Your task to perform on an android device: Open the calendar and show me this week's events? Image 0: 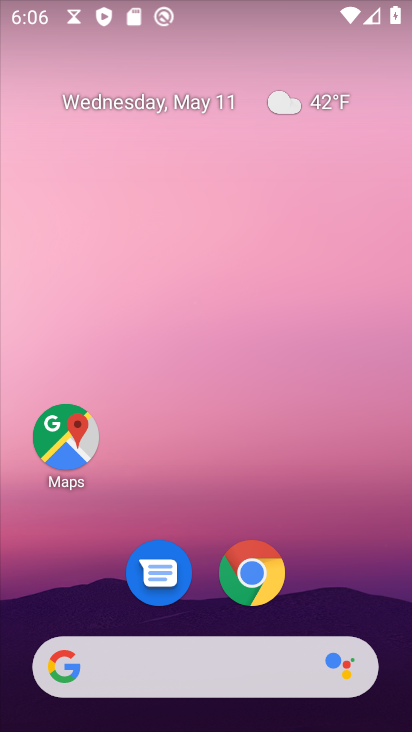
Step 0: drag from (301, 612) to (308, 182)
Your task to perform on an android device: Open the calendar and show me this week's events? Image 1: 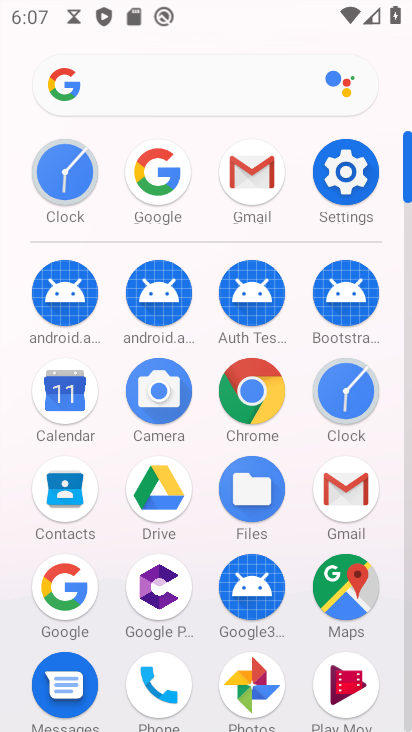
Step 1: drag from (295, 502) to (295, 339)
Your task to perform on an android device: Open the calendar and show me this week's events? Image 2: 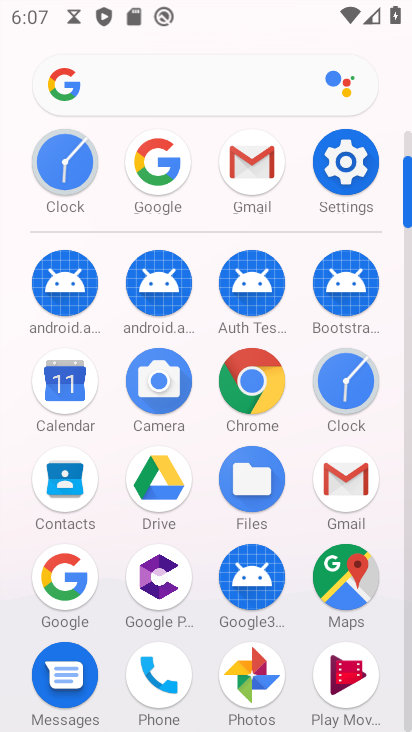
Step 2: click (58, 406)
Your task to perform on an android device: Open the calendar and show me this week's events? Image 3: 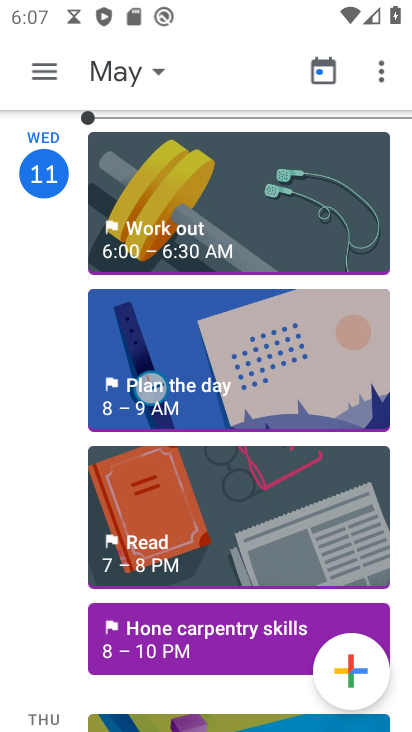
Step 3: click (101, 70)
Your task to perform on an android device: Open the calendar and show me this week's events? Image 4: 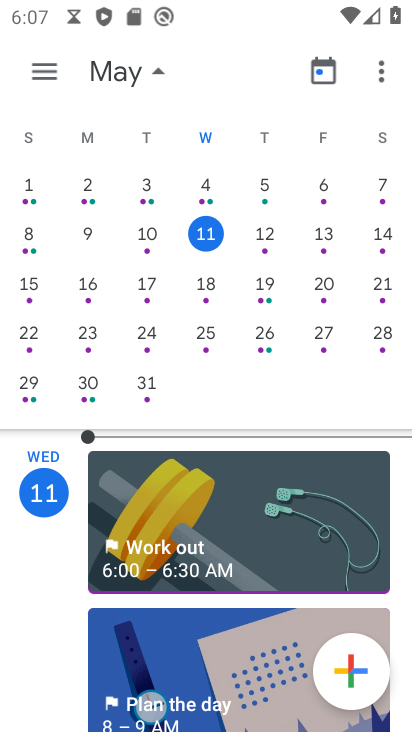
Step 4: click (39, 68)
Your task to perform on an android device: Open the calendar and show me this week's events? Image 5: 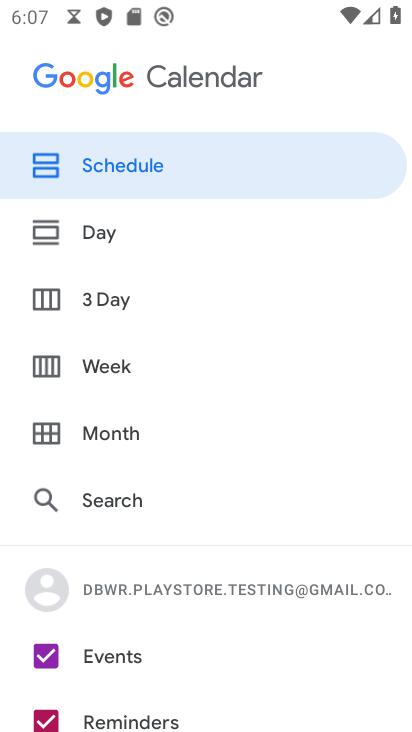
Step 5: click (101, 372)
Your task to perform on an android device: Open the calendar and show me this week's events? Image 6: 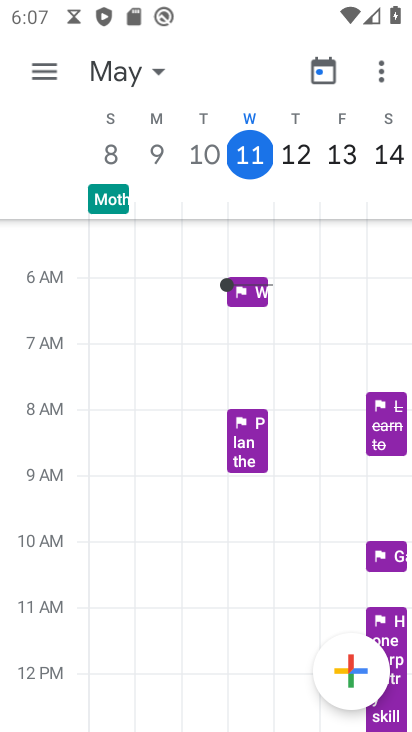
Step 6: click (124, 77)
Your task to perform on an android device: Open the calendar and show me this week's events? Image 7: 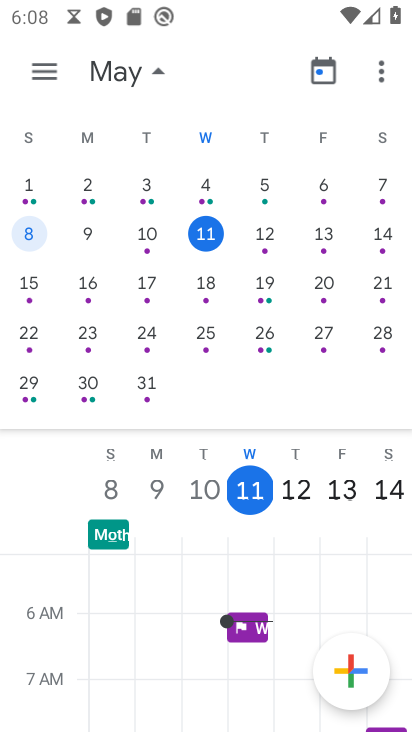
Step 7: click (31, 233)
Your task to perform on an android device: Open the calendar and show me this week's events? Image 8: 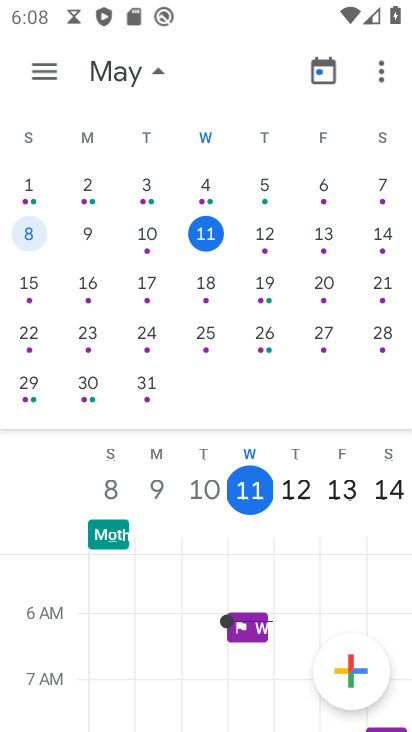
Step 8: task complete